Your task to perform on an android device: set the timer Image 0: 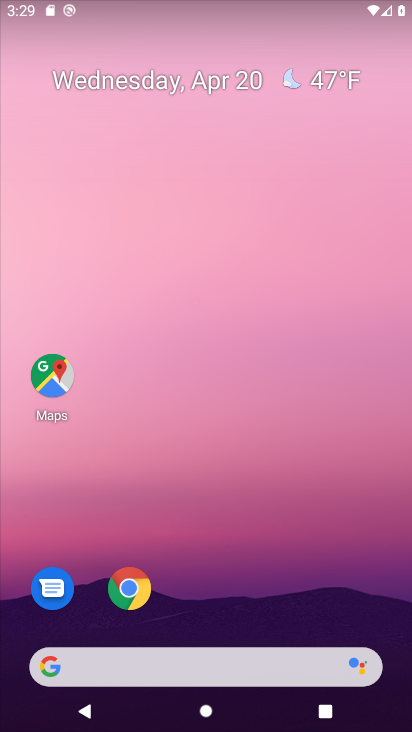
Step 0: drag from (211, 416) to (238, 147)
Your task to perform on an android device: set the timer Image 1: 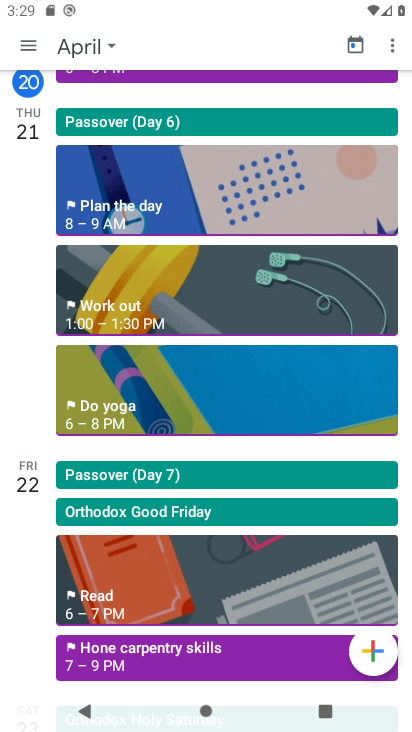
Step 1: press home button
Your task to perform on an android device: set the timer Image 2: 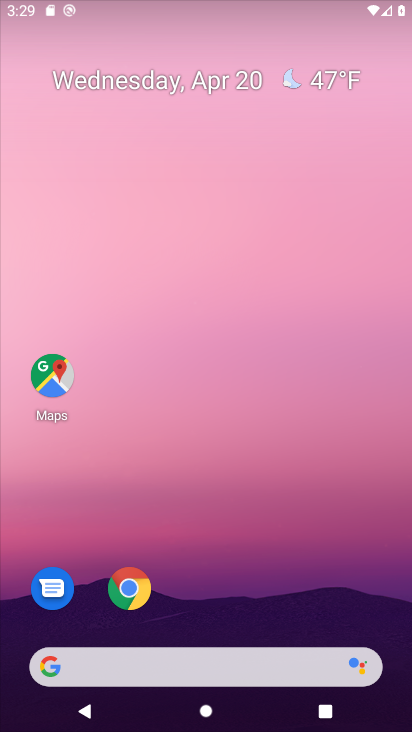
Step 2: drag from (251, 519) to (262, 92)
Your task to perform on an android device: set the timer Image 3: 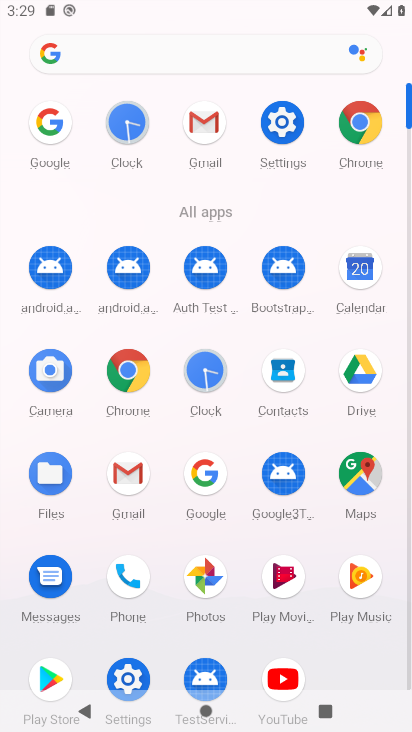
Step 3: click (122, 129)
Your task to perform on an android device: set the timer Image 4: 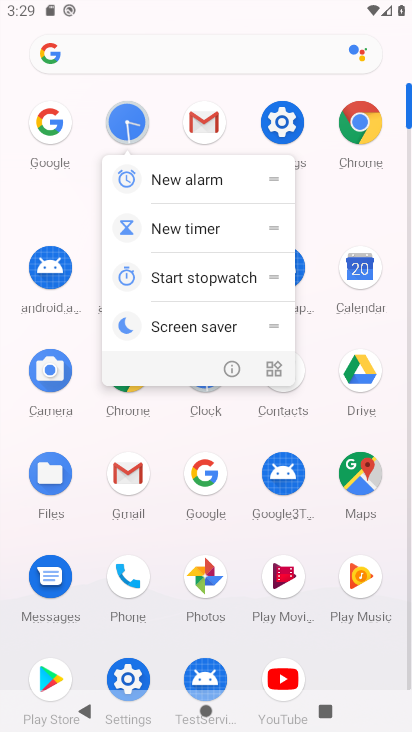
Step 4: click (122, 129)
Your task to perform on an android device: set the timer Image 5: 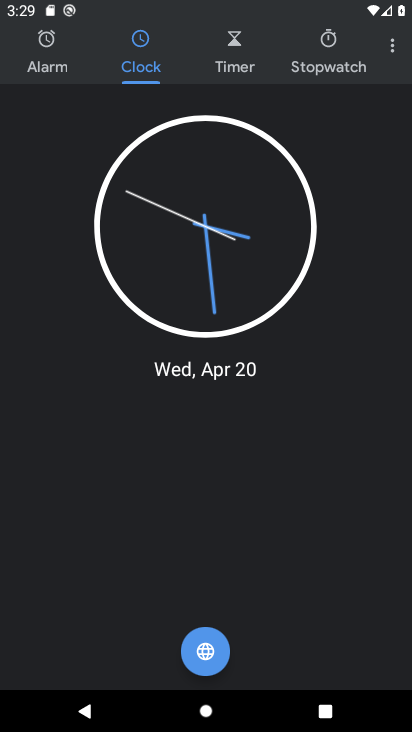
Step 5: click (225, 52)
Your task to perform on an android device: set the timer Image 6: 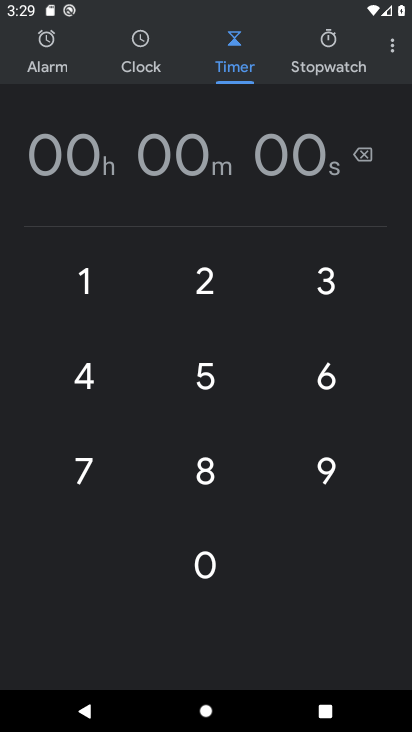
Step 6: click (109, 292)
Your task to perform on an android device: set the timer Image 7: 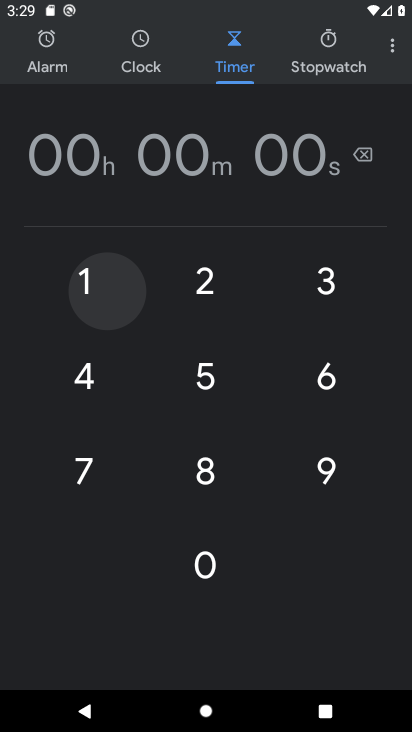
Step 7: click (109, 292)
Your task to perform on an android device: set the timer Image 8: 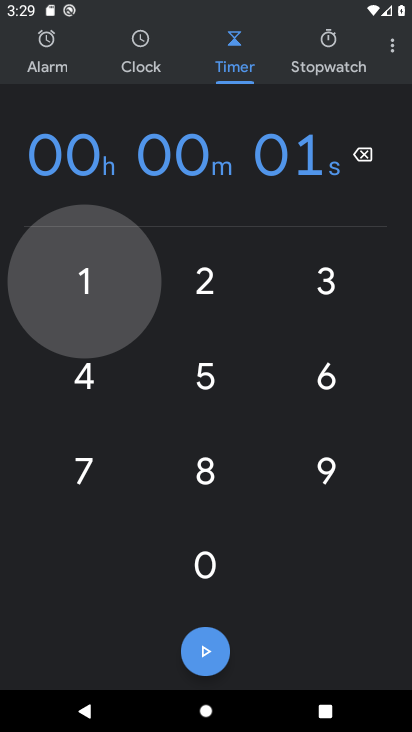
Step 8: click (109, 292)
Your task to perform on an android device: set the timer Image 9: 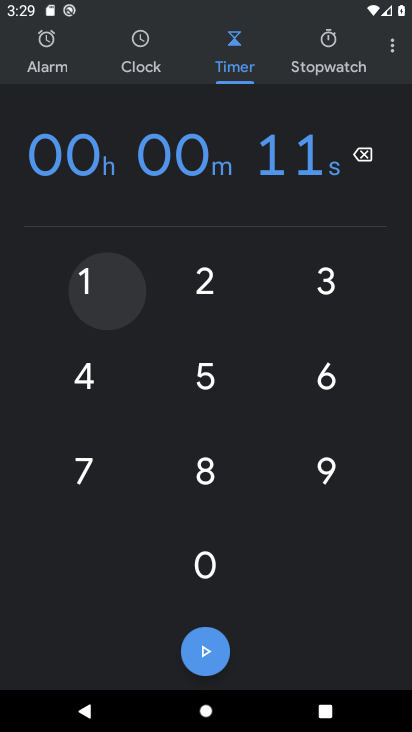
Step 9: click (109, 292)
Your task to perform on an android device: set the timer Image 10: 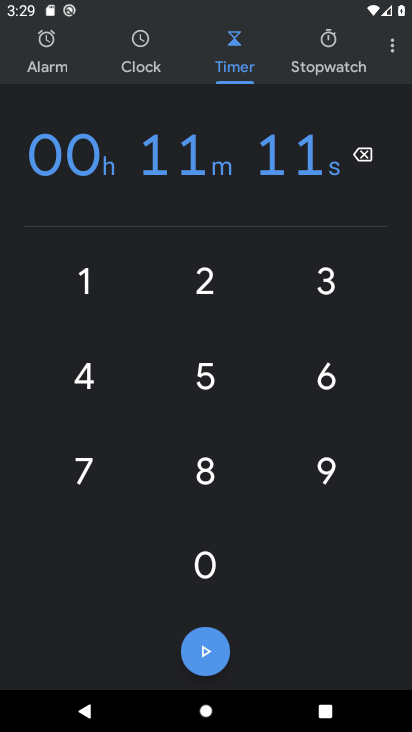
Step 10: click (109, 292)
Your task to perform on an android device: set the timer Image 11: 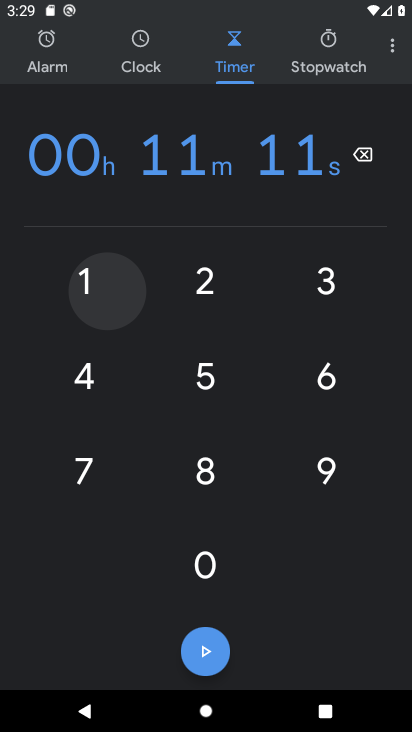
Step 11: click (109, 292)
Your task to perform on an android device: set the timer Image 12: 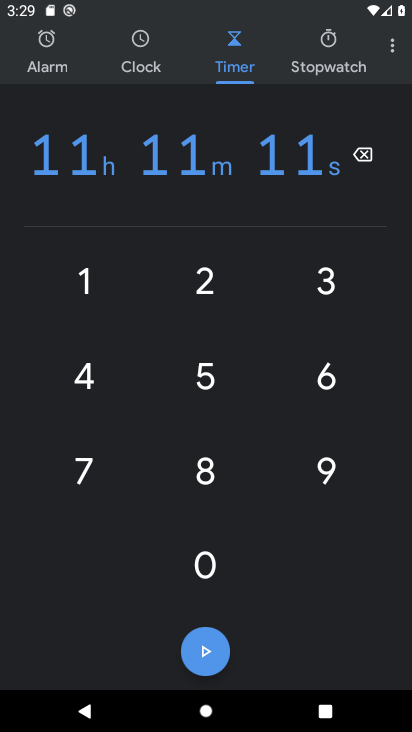
Step 12: click (213, 650)
Your task to perform on an android device: set the timer Image 13: 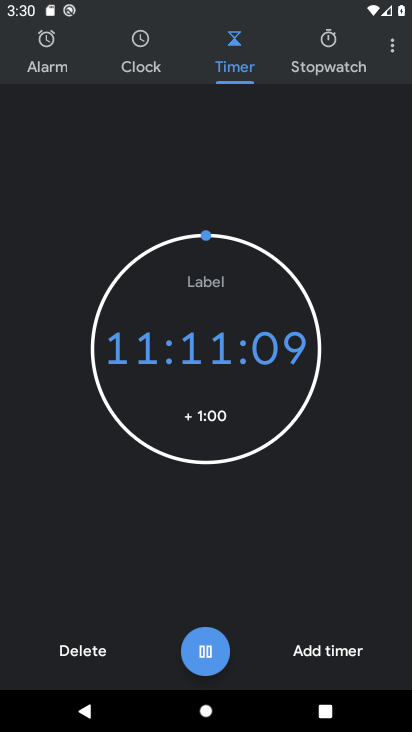
Step 13: task complete